Your task to perform on an android device: turn pop-ups off in chrome Image 0: 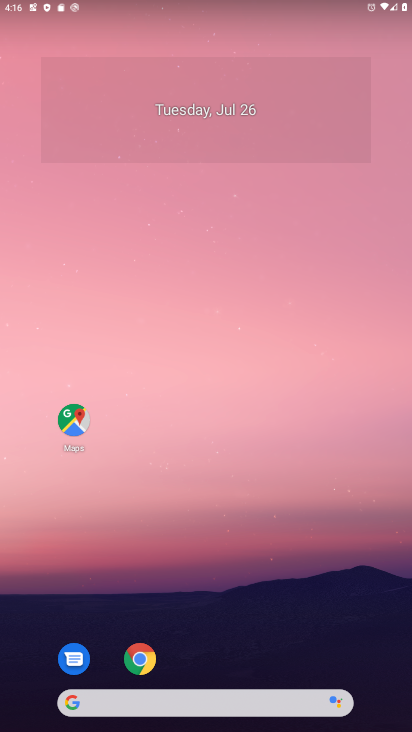
Step 0: press home button
Your task to perform on an android device: turn pop-ups off in chrome Image 1: 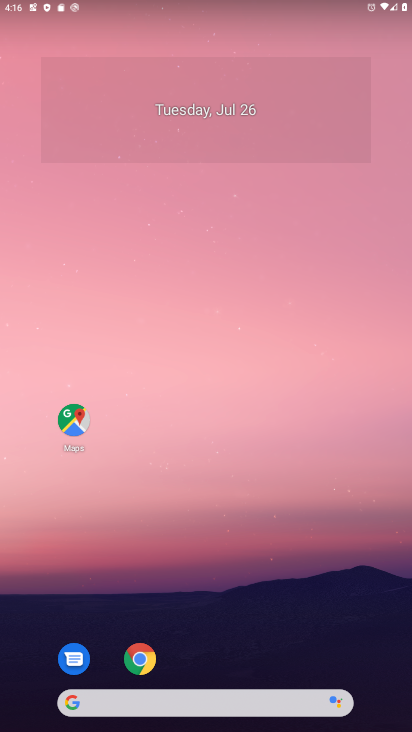
Step 1: drag from (235, 636) to (259, 56)
Your task to perform on an android device: turn pop-ups off in chrome Image 2: 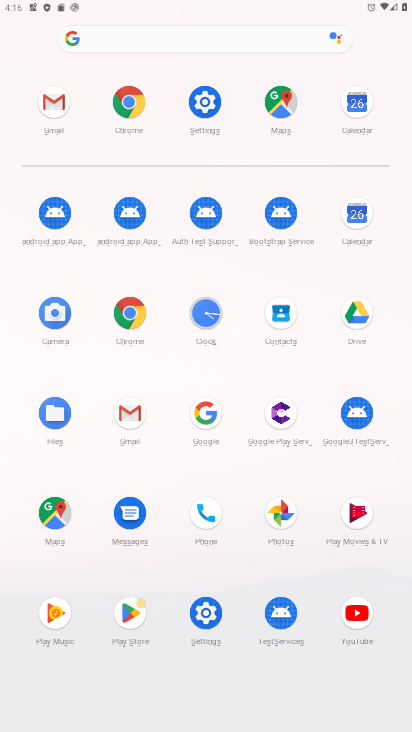
Step 2: click (125, 106)
Your task to perform on an android device: turn pop-ups off in chrome Image 3: 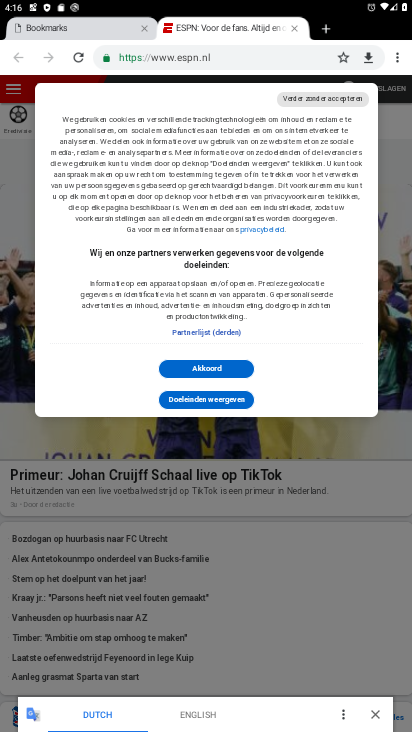
Step 3: drag from (405, 63) to (286, 422)
Your task to perform on an android device: turn pop-ups off in chrome Image 4: 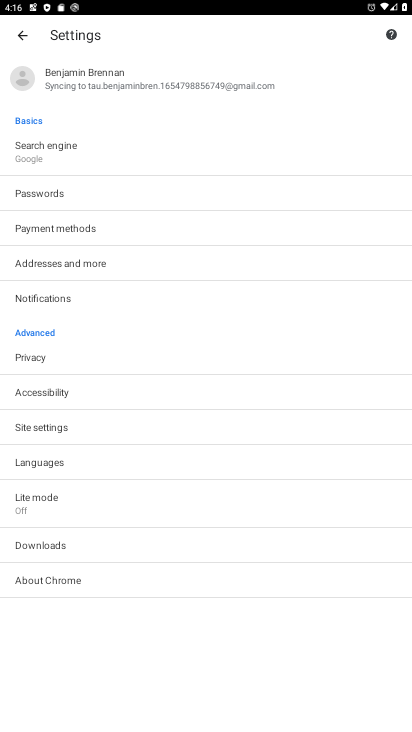
Step 4: click (33, 426)
Your task to perform on an android device: turn pop-ups off in chrome Image 5: 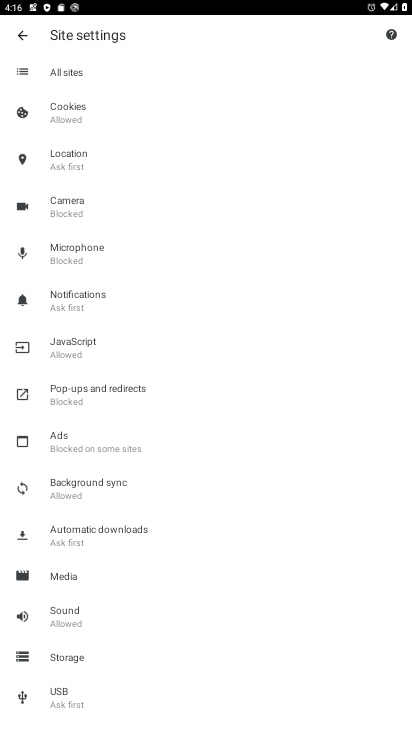
Step 5: click (62, 391)
Your task to perform on an android device: turn pop-ups off in chrome Image 6: 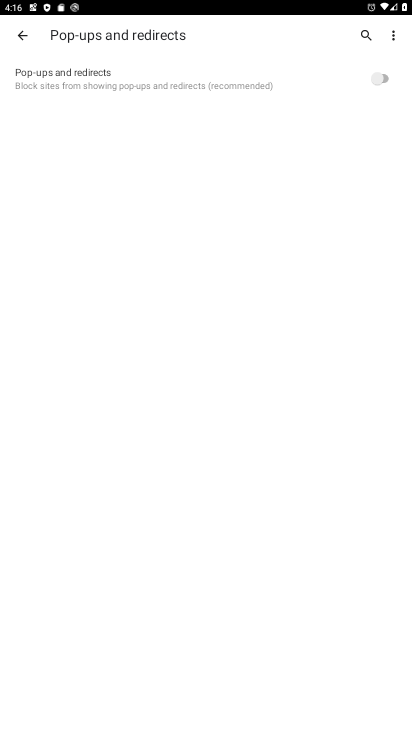
Step 6: task complete